Your task to perform on an android device: toggle notifications settings in the gmail app Image 0: 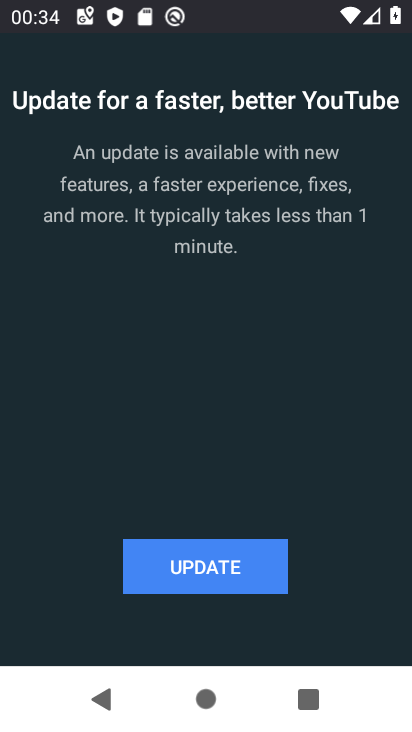
Step 0: press back button
Your task to perform on an android device: toggle notifications settings in the gmail app Image 1: 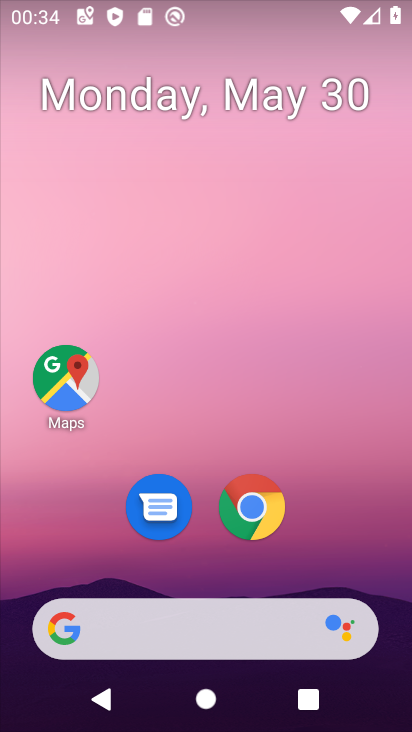
Step 1: drag from (315, 550) to (286, 193)
Your task to perform on an android device: toggle notifications settings in the gmail app Image 2: 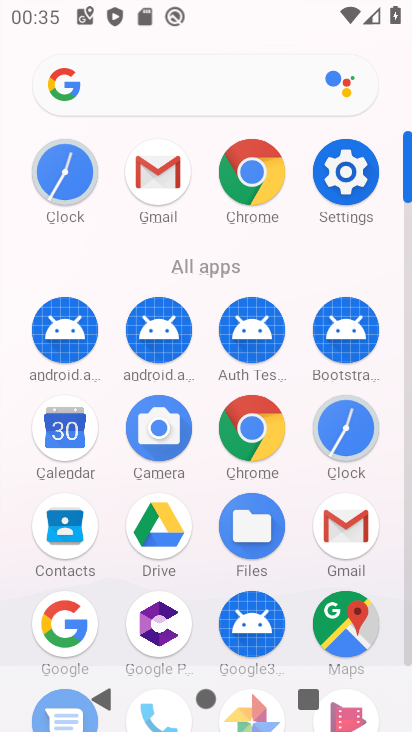
Step 2: click (359, 521)
Your task to perform on an android device: toggle notifications settings in the gmail app Image 3: 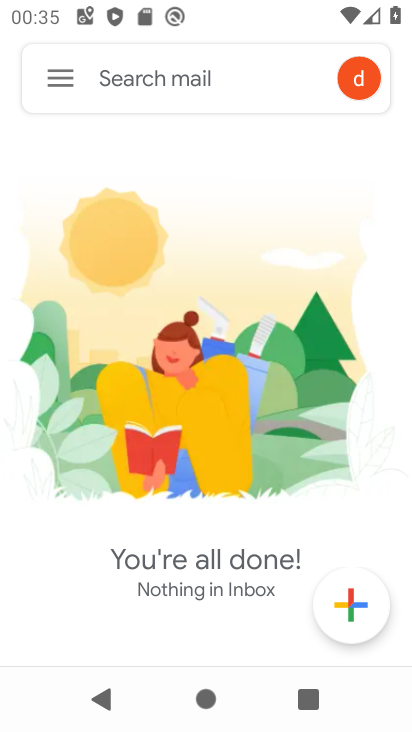
Step 3: click (55, 79)
Your task to perform on an android device: toggle notifications settings in the gmail app Image 4: 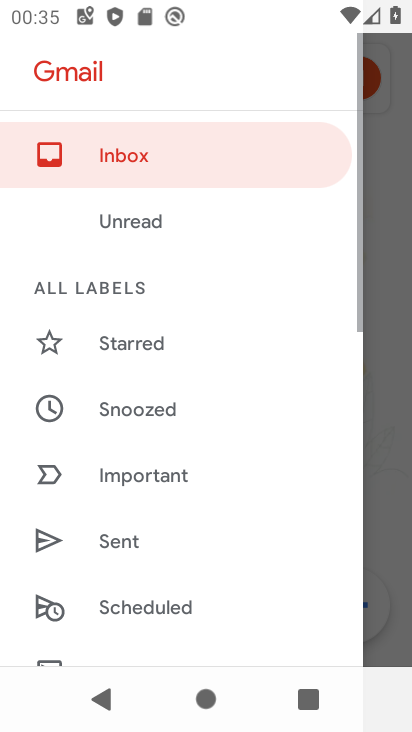
Step 4: drag from (177, 566) to (181, 300)
Your task to perform on an android device: toggle notifications settings in the gmail app Image 5: 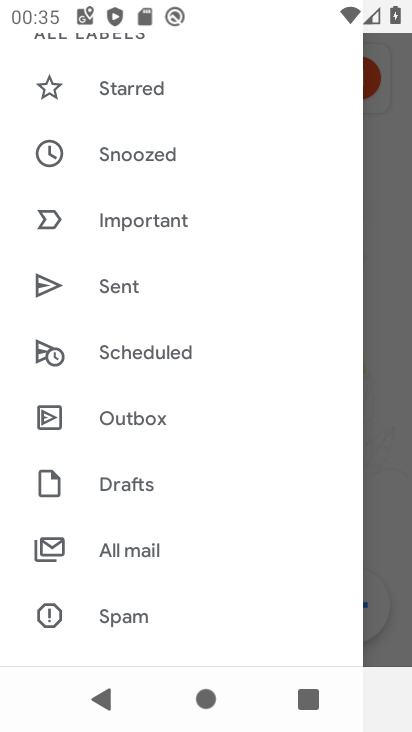
Step 5: drag from (193, 630) to (205, 302)
Your task to perform on an android device: toggle notifications settings in the gmail app Image 6: 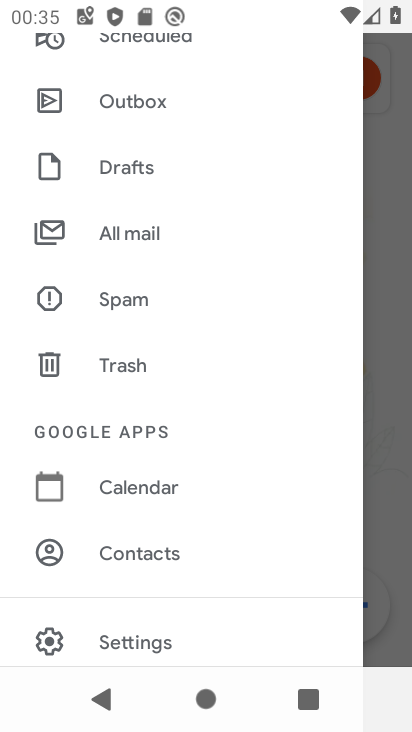
Step 6: click (148, 632)
Your task to perform on an android device: toggle notifications settings in the gmail app Image 7: 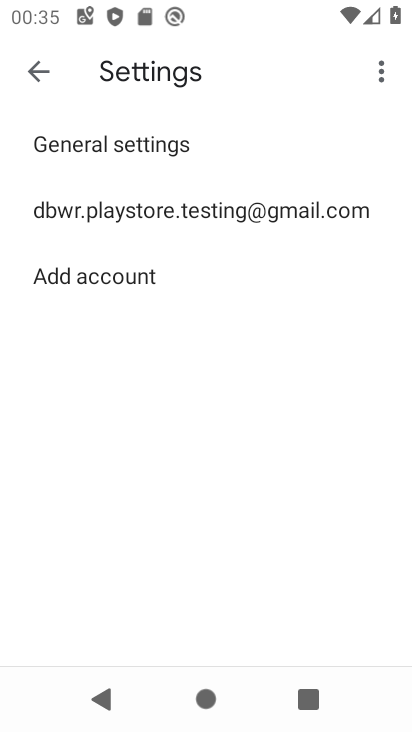
Step 7: click (208, 217)
Your task to perform on an android device: toggle notifications settings in the gmail app Image 8: 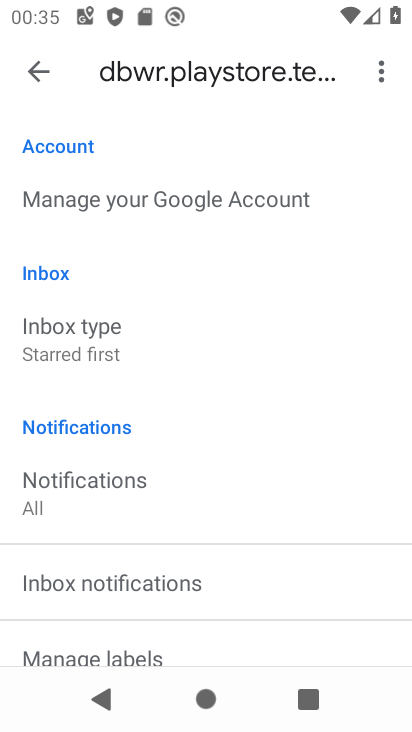
Step 8: click (116, 494)
Your task to perform on an android device: toggle notifications settings in the gmail app Image 9: 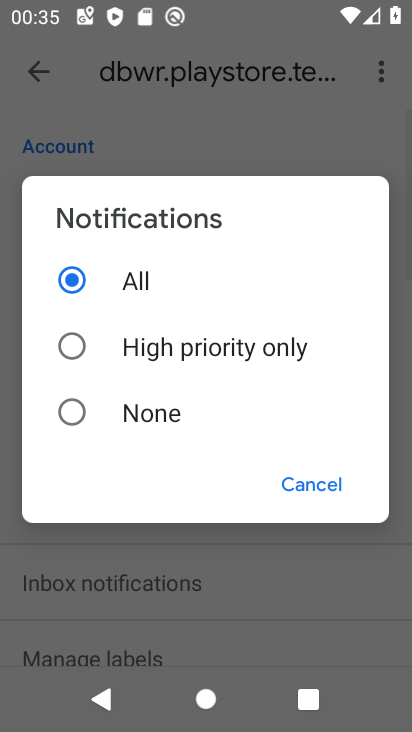
Step 9: click (129, 405)
Your task to perform on an android device: toggle notifications settings in the gmail app Image 10: 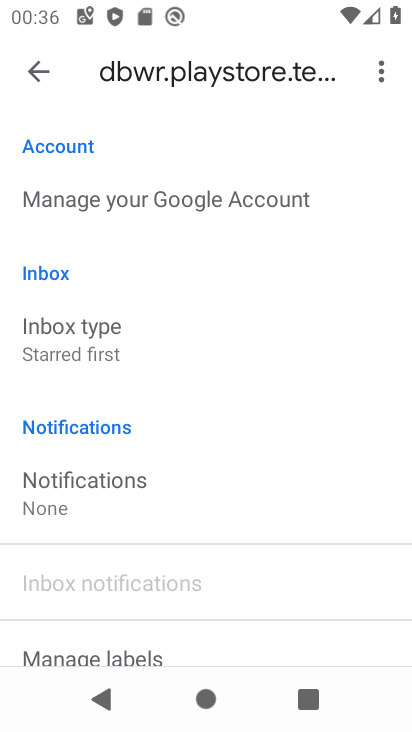
Step 10: task complete